Your task to perform on an android device: turn on showing notifications on the lock screen Image 0: 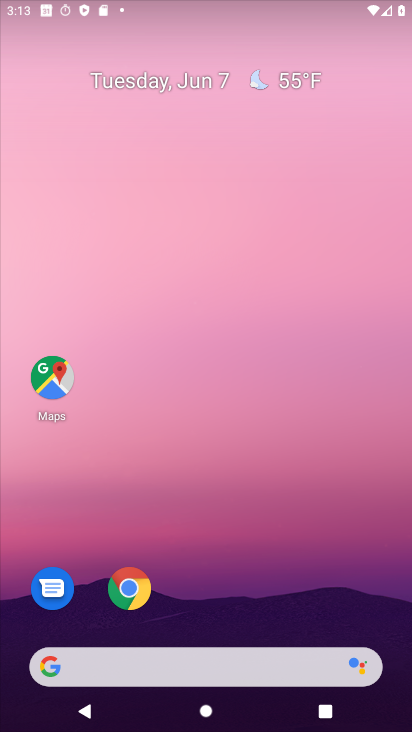
Step 0: press home button
Your task to perform on an android device: turn on showing notifications on the lock screen Image 1: 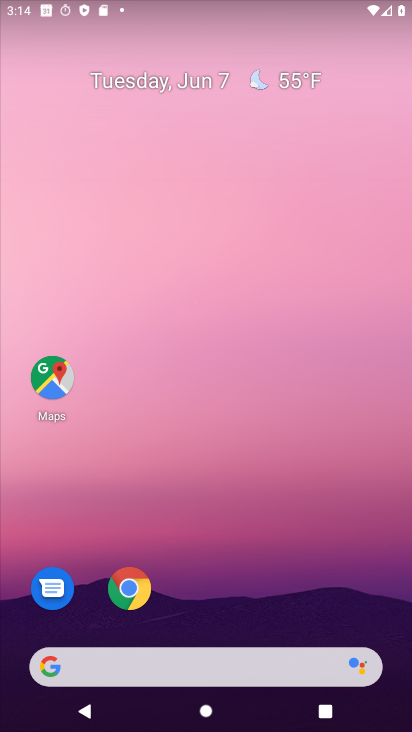
Step 1: drag from (252, 618) to (274, 251)
Your task to perform on an android device: turn on showing notifications on the lock screen Image 2: 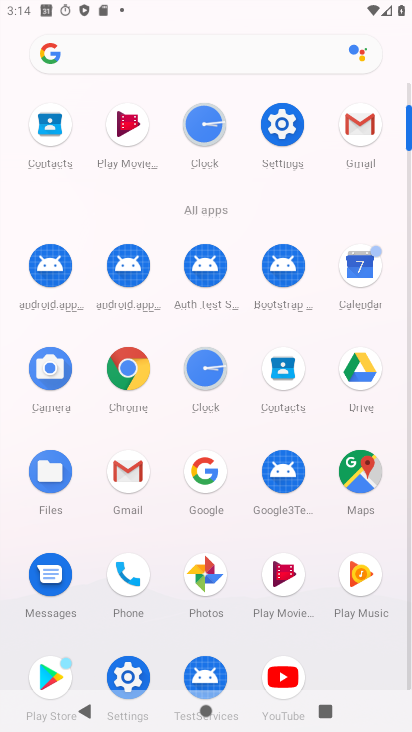
Step 2: click (277, 119)
Your task to perform on an android device: turn on showing notifications on the lock screen Image 3: 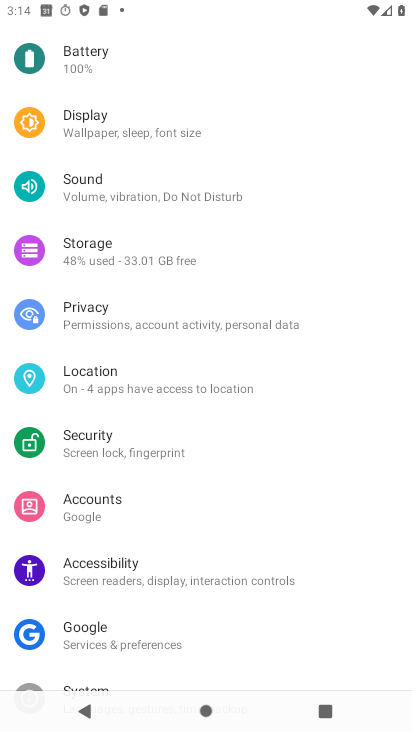
Step 3: drag from (182, 73) to (165, 452)
Your task to perform on an android device: turn on showing notifications on the lock screen Image 4: 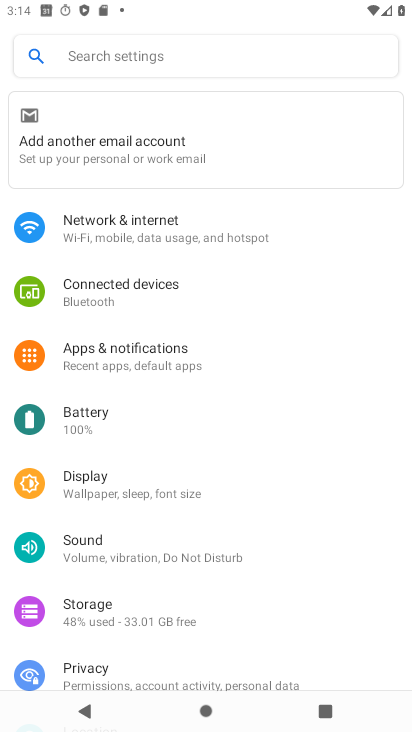
Step 4: click (117, 361)
Your task to perform on an android device: turn on showing notifications on the lock screen Image 5: 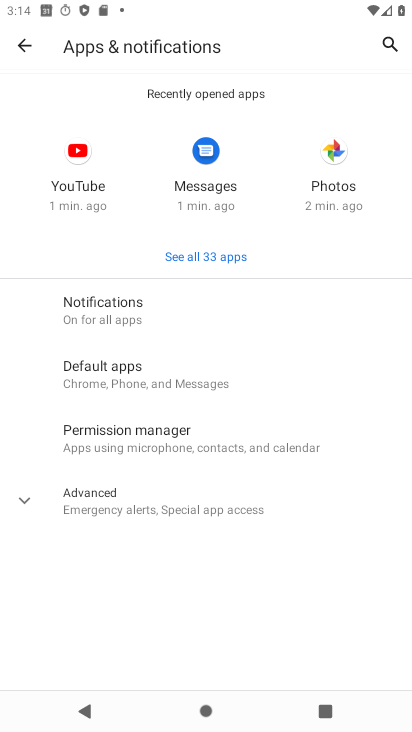
Step 5: click (108, 312)
Your task to perform on an android device: turn on showing notifications on the lock screen Image 6: 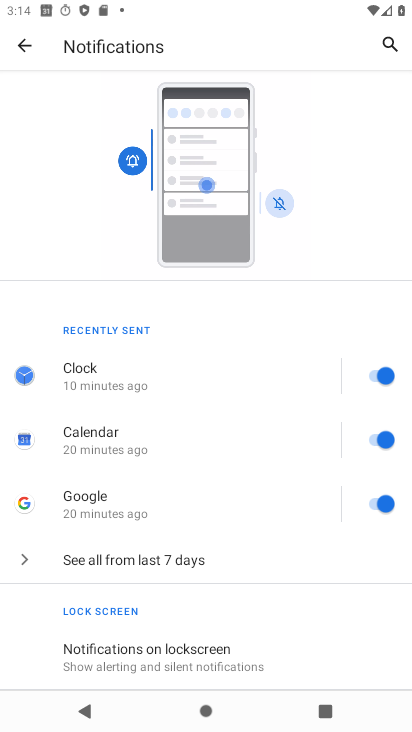
Step 6: click (146, 657)
Your task to perform on an android device: turn on showing notifications on the lock screen Image 7: 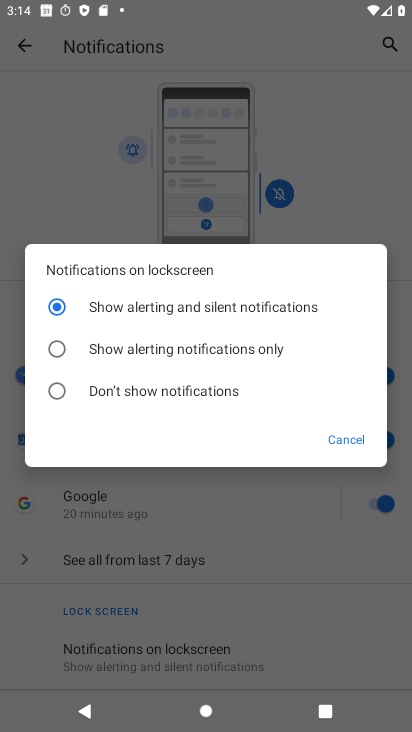
Step 7: task complete